Your task to perform on an android device: See recent photos Image 0: 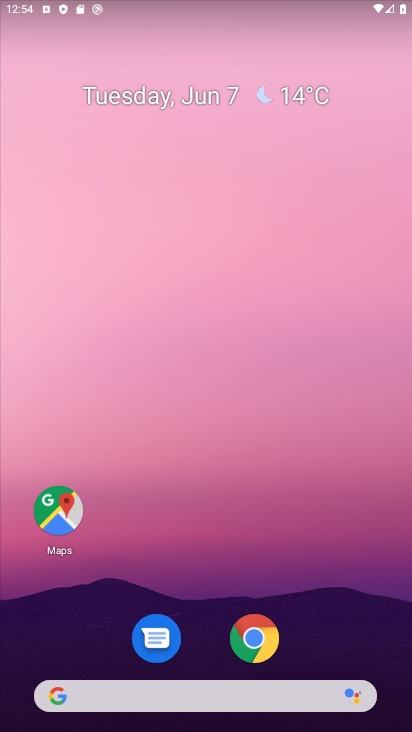
Step 0: drag from (207, 452) to (208, 246)
Your task to perform on an android device: See recent photos Image 1: 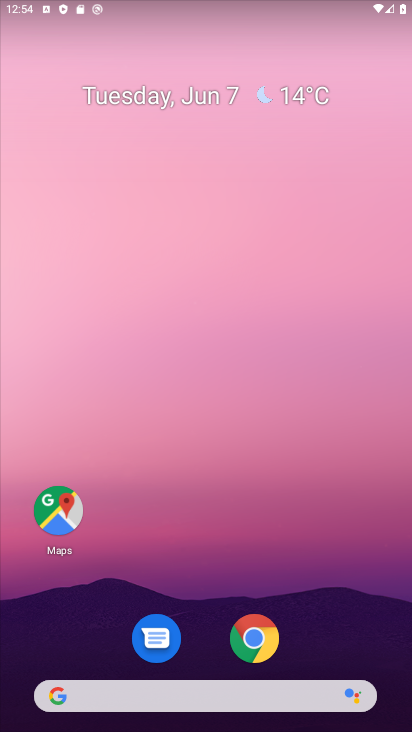
Step 1: drag from (196, 651) to (212, 222)
Your task to perform on an android device: See recent photos Image 2: 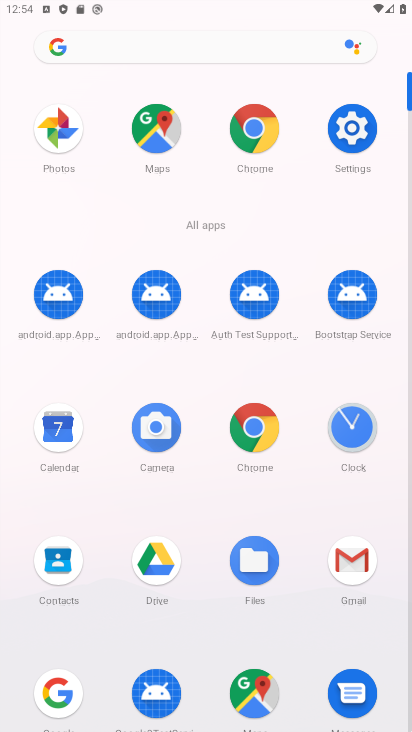
Step 2: click (66, 135)
Your task to perform on an android device: See recent photos Image 3: 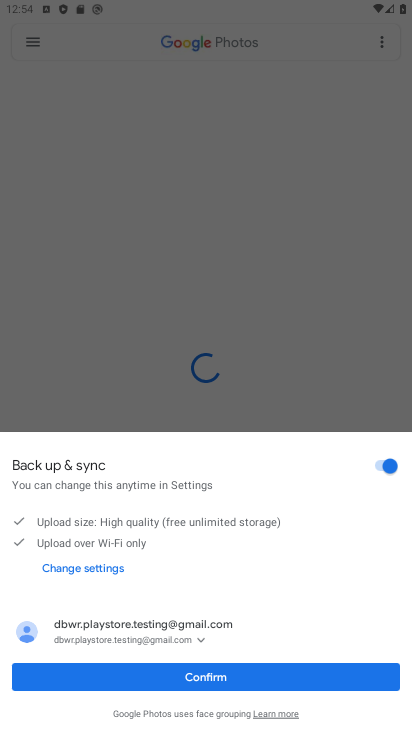
Step 3: click (281, 673)
Your task to perform on an android device: See recent photos Image 4: 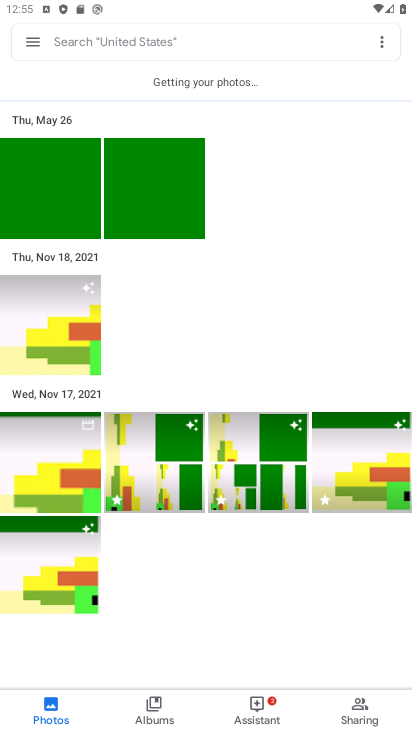
Step 4: task complete